Your task to perform on an android device: Search for vegetarian restaurants on Maps Image 0: 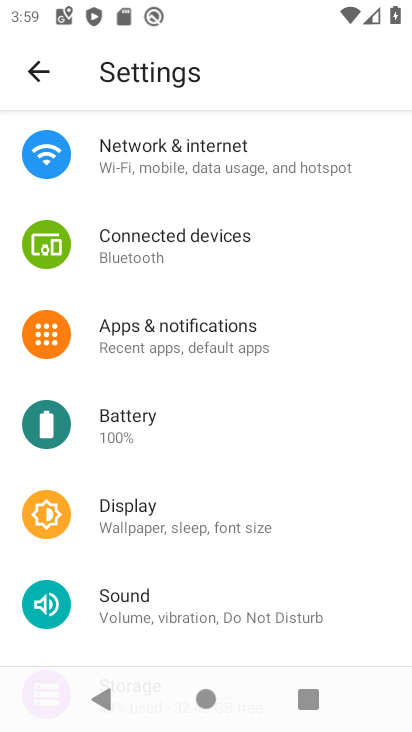
Step 0: press home button
Your task to perform on an android device: Search for vegetarian restaurants on Maps Image 1: 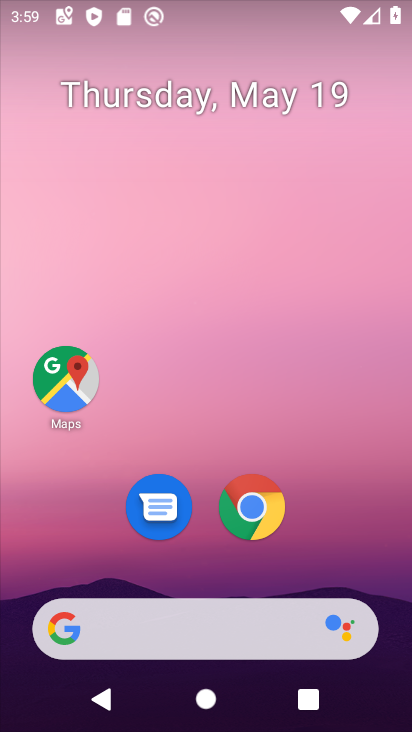
Step 1: click (53, 384)
Your task to perform on an android device: Search for vegetarian restaurants on Maps Image 2: 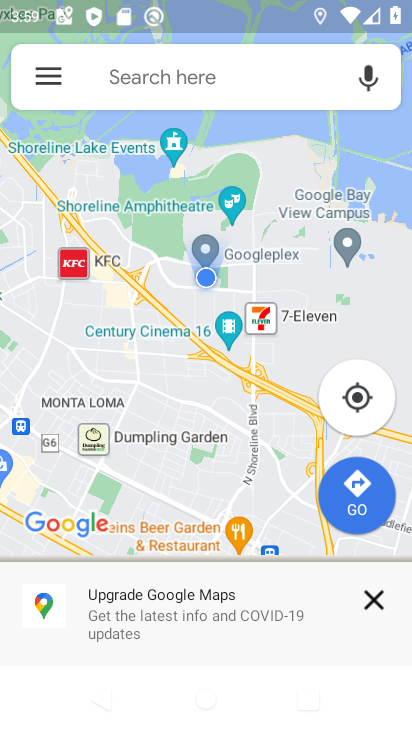
Step 2: click (185, 82)
Your task to perform on an android device: Search for vegetarian restaurants on Maps Image 3: 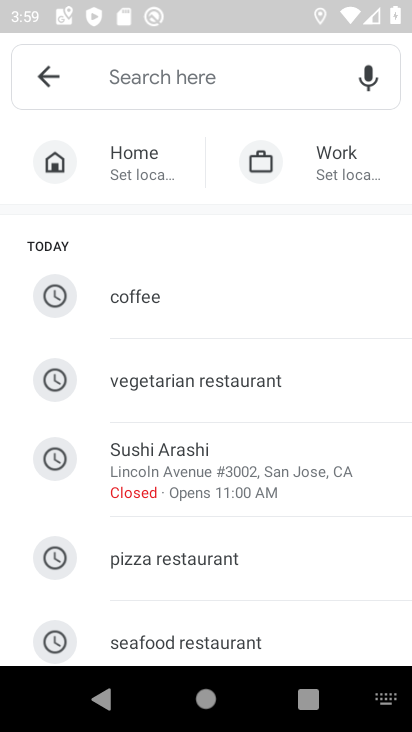
Step 3: type " vegetarian restaurants"
Your task to perform on an android device: Search for vegetarian restaurants on Maps Image 4: 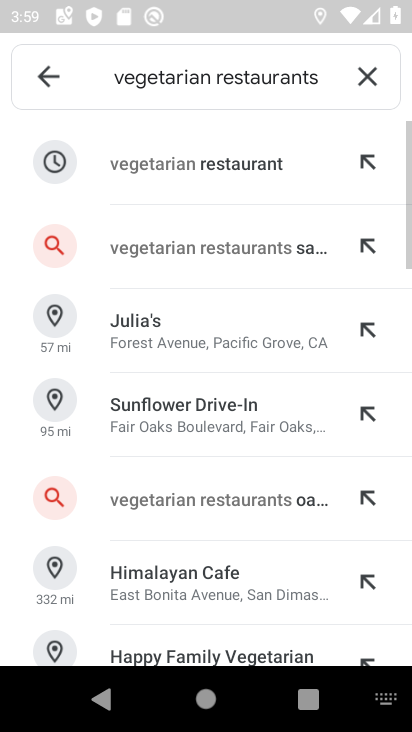
Step 4: click (160, 158)
Your task to perform on an android device: Search for vegetarian restaurants on Maps Image 5: 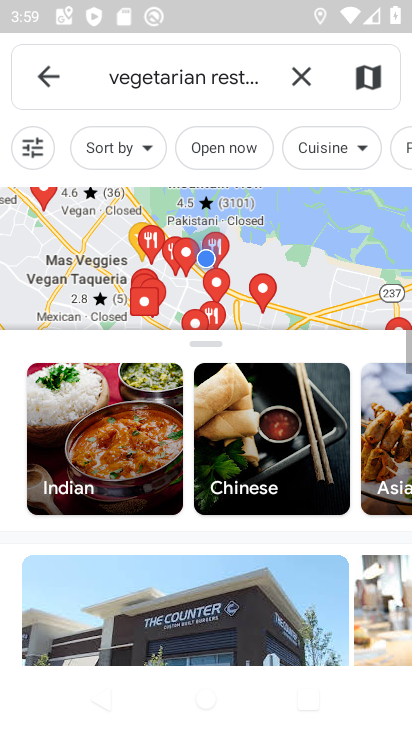
Step 5: task complete